Your task to perform on an android device: turn on location history Image 0: 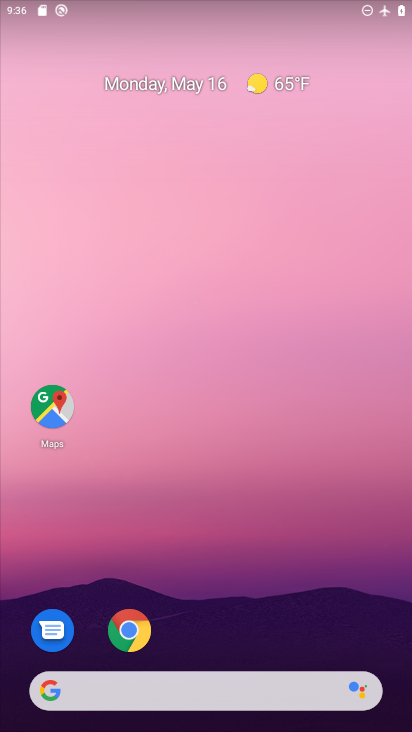
Step 0: drag from (220, 646) to (237, 231)
Your task to perform on an android device: turn on location history Image 1: 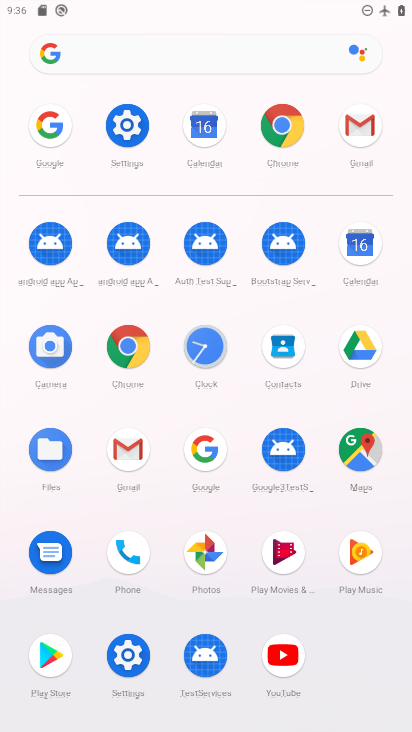
Step 1: click (96, 129)
Your task to perform on an android device: turn on location history Image 2: 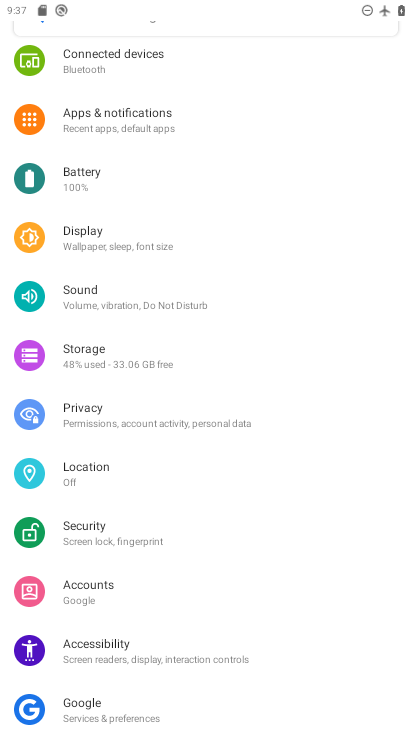
Step 2: click (105, 468)
Your task to perform on an android device: turn on location history Image 3: 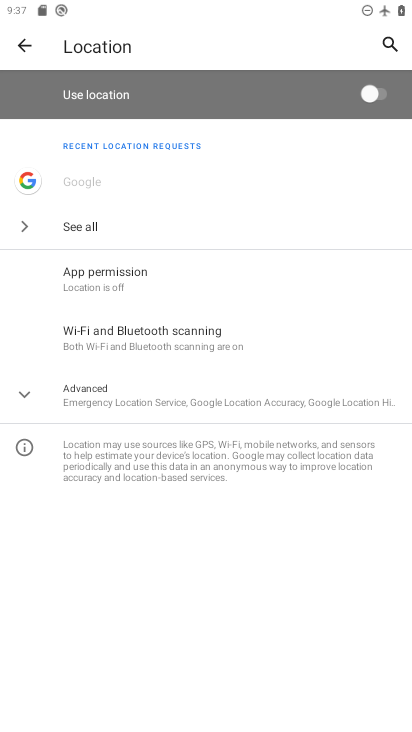
Step 3: click (206, 396)
Your task to perform on an android device: turn on location history Image 4: 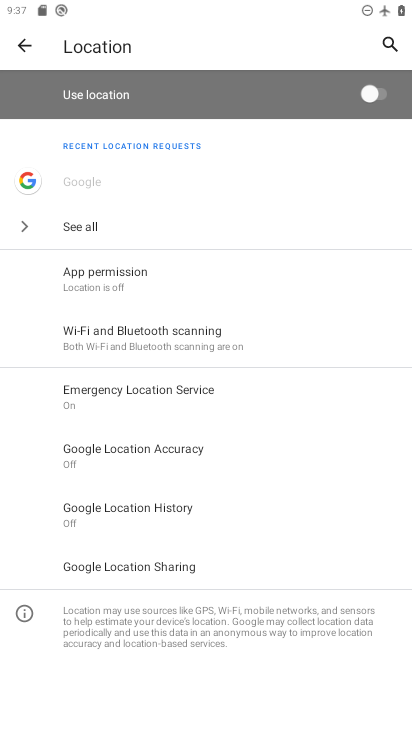
Step 4: click (186, 510)
Your task to perform on an android device: turn on location history Image 5: 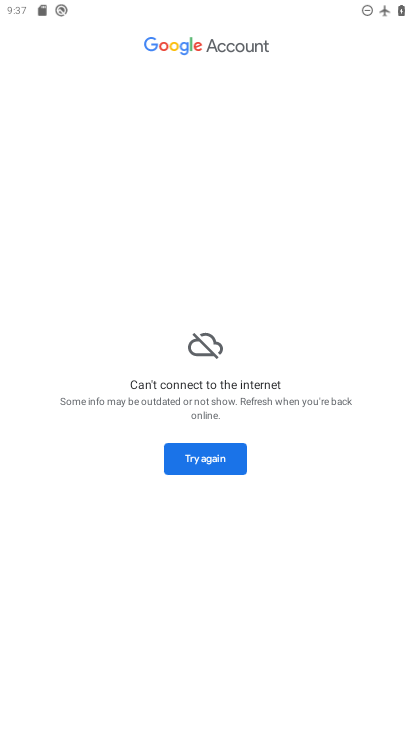
Step 5: click (225, 438)
Your task to perform on an android device: turn on location history Image 6: 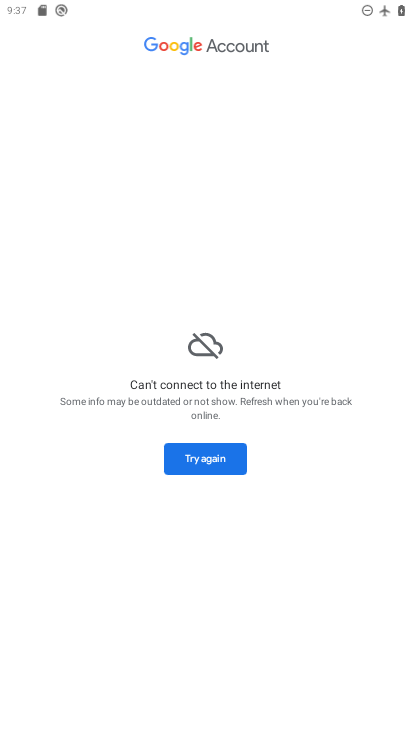
Step 6: task complete